Your task to perform on an android device: Open Yahoo.com Image 0: 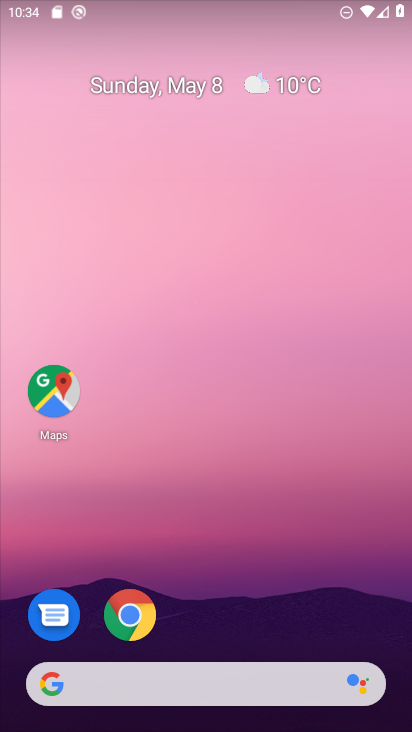
Step 0: drag from (267, 543) to (263, 154)
Your task to perform on an android device: Open Yahoo.com Image 1: 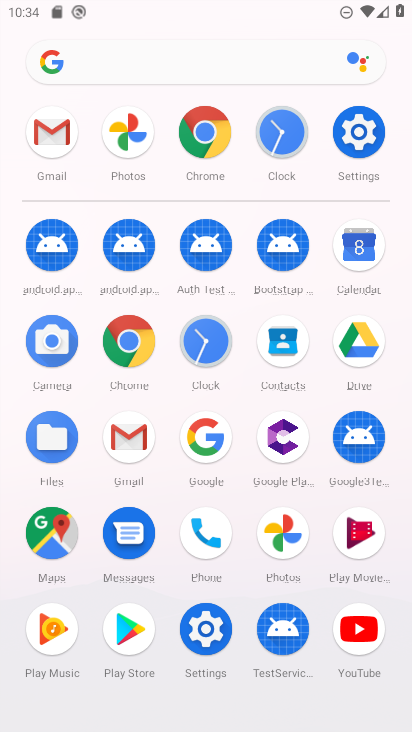
Step 1: click (138, 349)
Your task to perform on an android device: Open Yahoo.com Image 2: 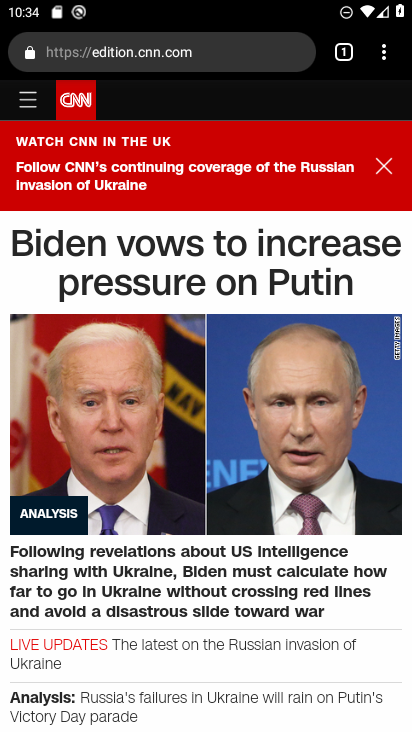
Step 2: click (205, 41)
Your task to perform on an android device: Open Yahoo.com Image 3: 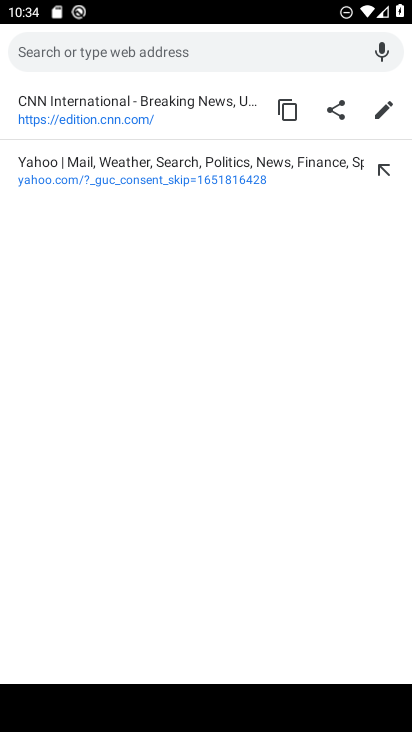
Step 3: click (207, 164)
Your task to perform on an android device: Open Yahoo.com Image 4: 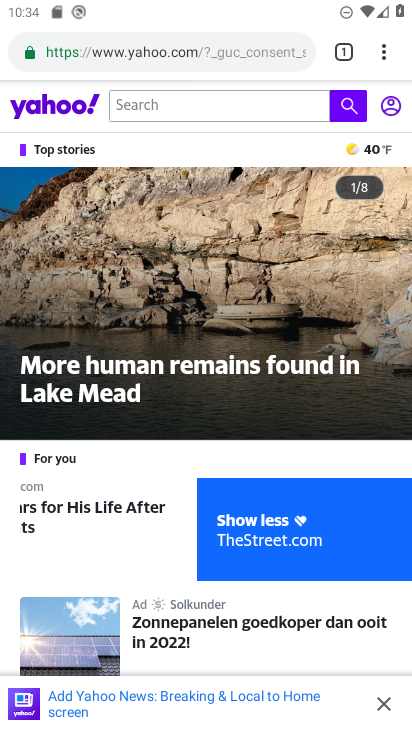
Step 4: task complete